Your task to perform on an android device: toggle notifications settings in the gmail app Image 0: 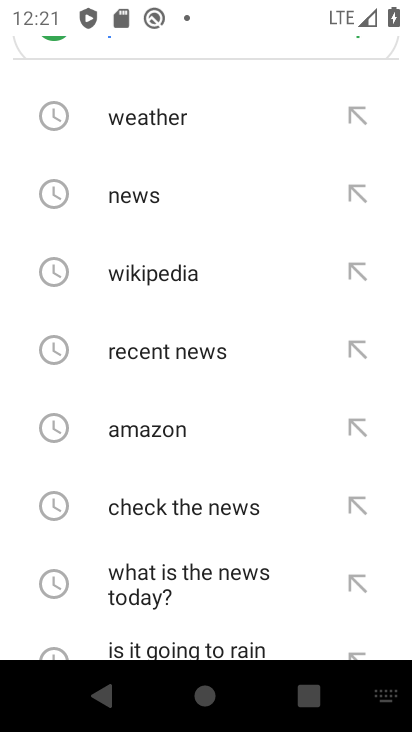
Step 0: press back button
Your task to perform on an android device: toggle notifications settings in the gmail app Image 1: 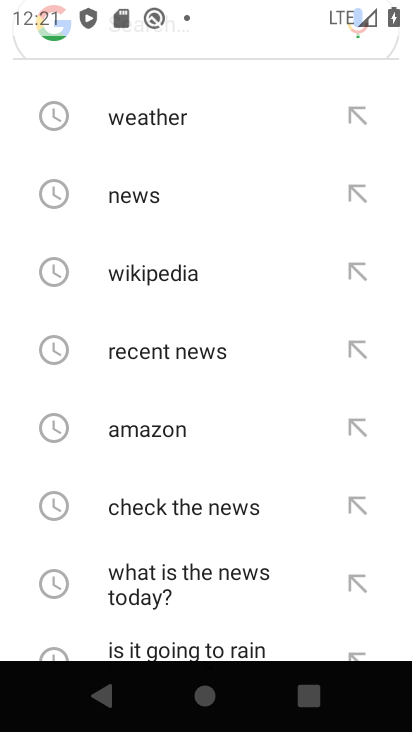
Step 1: press back button
Your task to perform on an android device: toggle notifications settings in the gmail app Image 2: 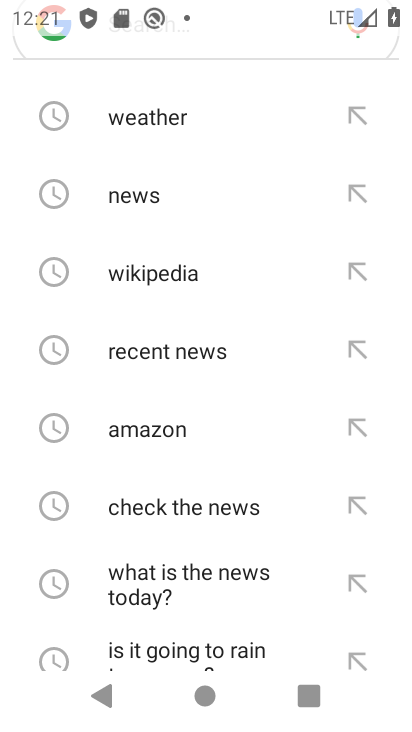
Step 2: press back button
Your task to perform on an android device: toggle notifications settings in the gmail app Image 3: 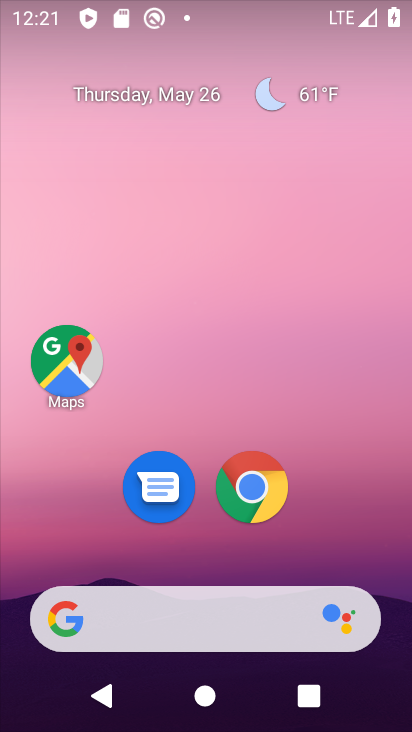
Step 3: drag from (276, 704) to (292, 296)
Your task to perform on an android device: toggle notifications settings in the gmail app Image 4: 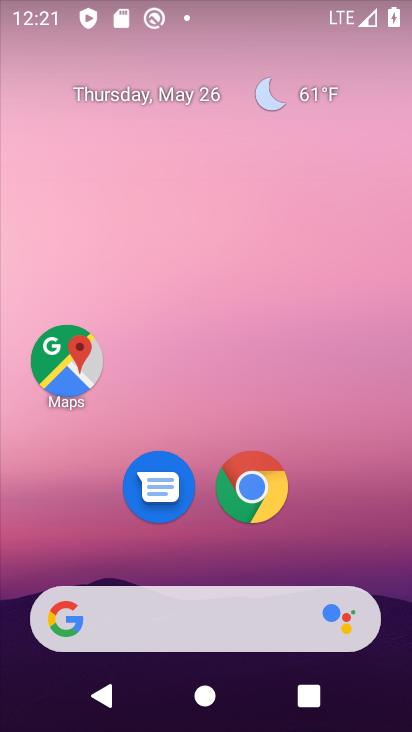
Step 4: drag from (261, 679) to (140, 30)
Your task to perform on an android device: toggle notifications settings in the gmail app Image 5: 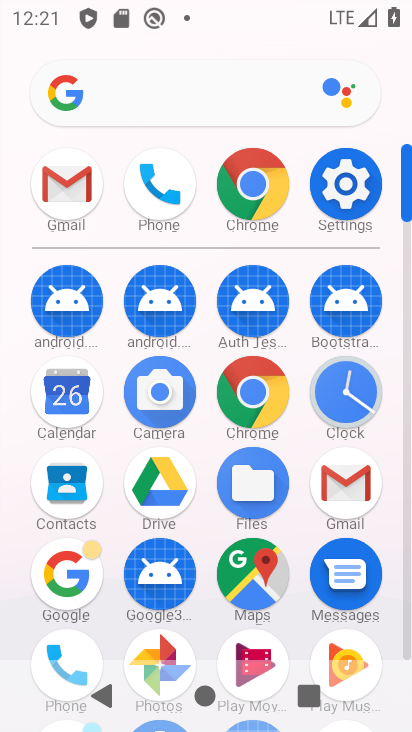
Step 5: click (332, 460)
Your task to perform on an android device: toggle notifications settings in the gmail app Image 6: 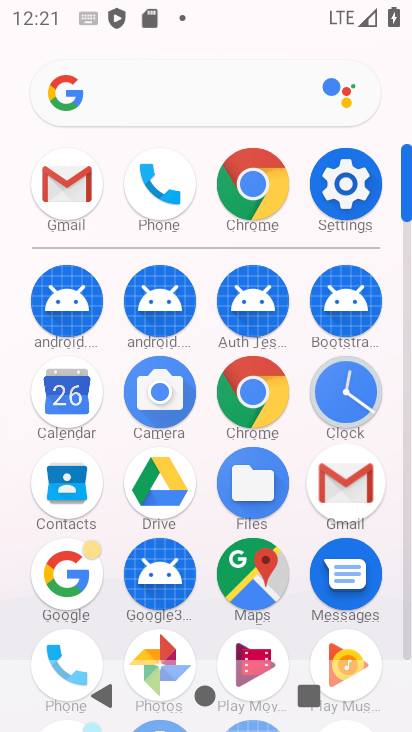
Step 6: click (333, 464)
Your task to perform on an android device: toggle notifications settings in the gmail app Image 7: 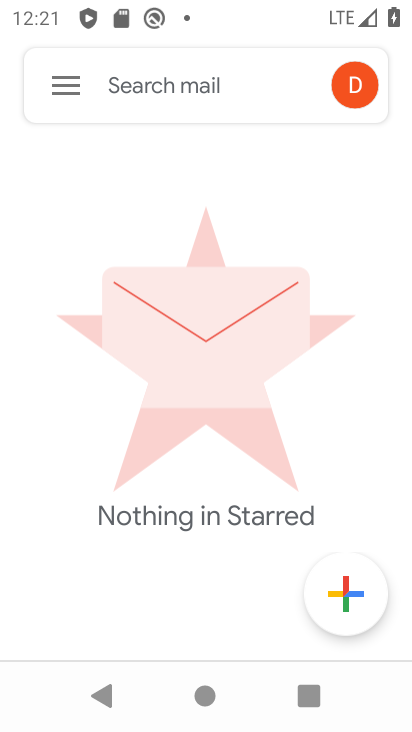
Step 7: click (69, 97)
Your task to perform on an android device: toggle notifications settings in the gmail app Image 8: 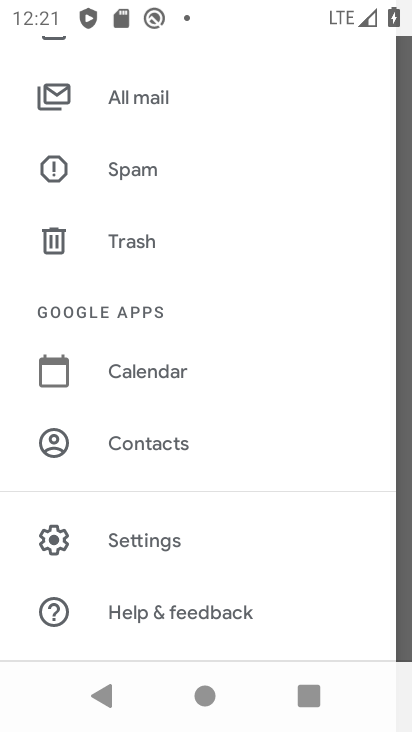
Step 8: click (139, 535)
Your task to perform on an android device: toggle notifications settings in the gmail app Image 9: 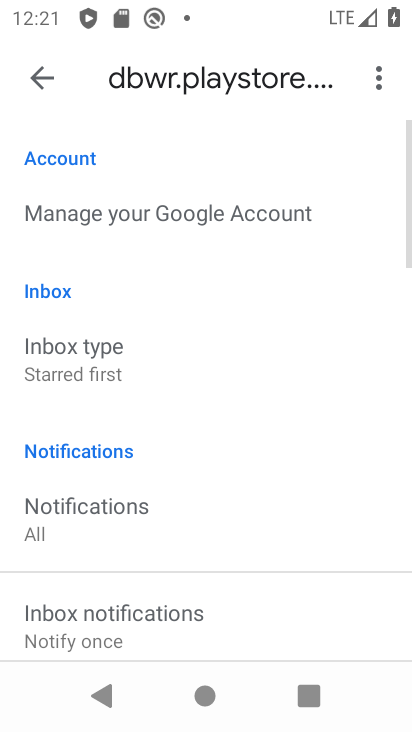
Step 9: click (63, 499)
Your task to perform on an android device: toggle notifications settings in the gmail app Image 10: 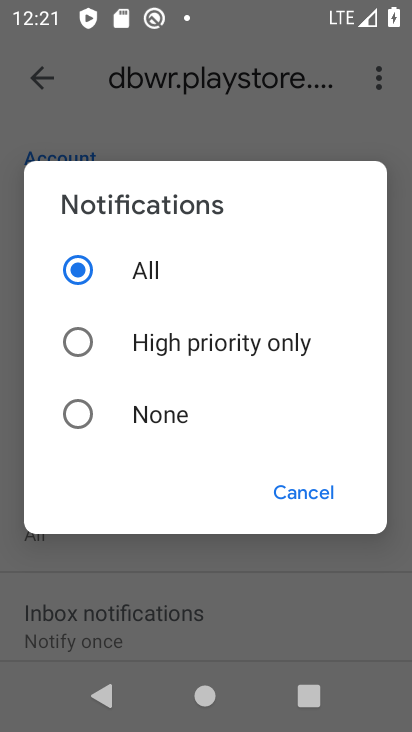
Step 10: click (77, 347)
Your task to perform on an android device: toggle notifications settings in the gmail app Image 11: 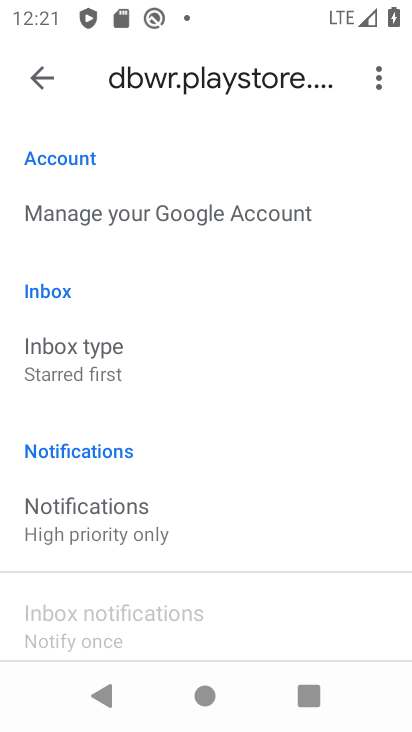
Step 11: task complete